Your task to perform on an android device: turn off translation in the chrome app Image 0: 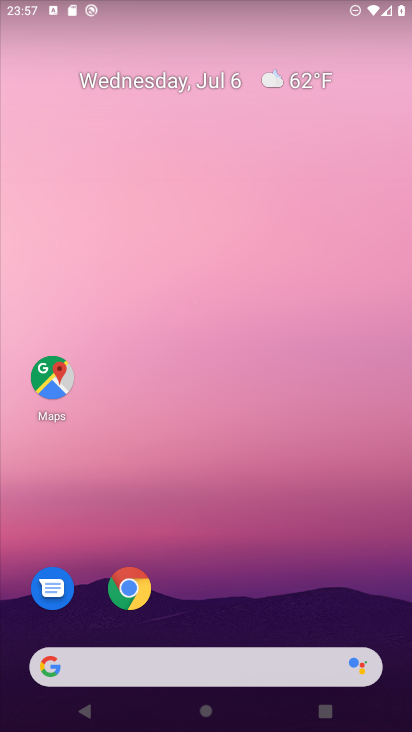
Step 0: click (129, 590)
Your task to perform on an android device: turn off translation in the chrome app Image 1: 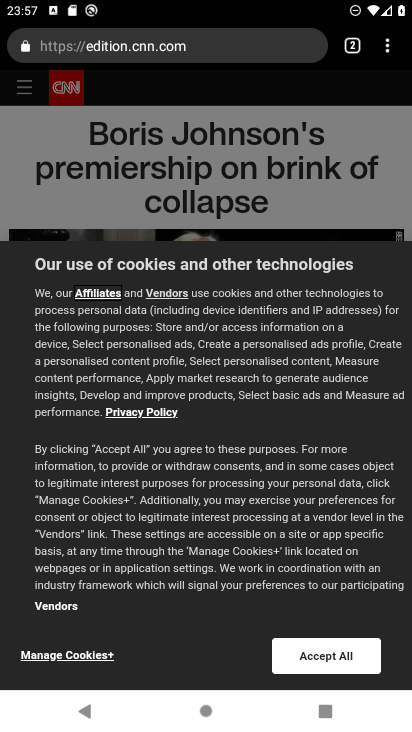
Step 1: click (386, 52)
Your task to perform on an android device: turn off translation in the chrome app Image 2: 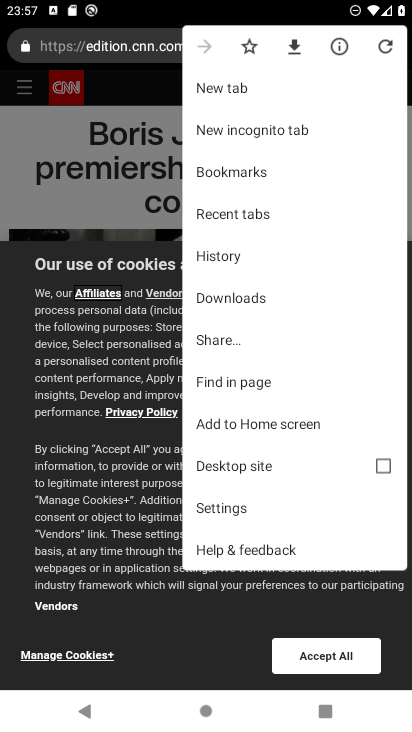
Step 2: click (228, 509)
Your task to perform on an android device: turn off translation in the chrome app Image 3: 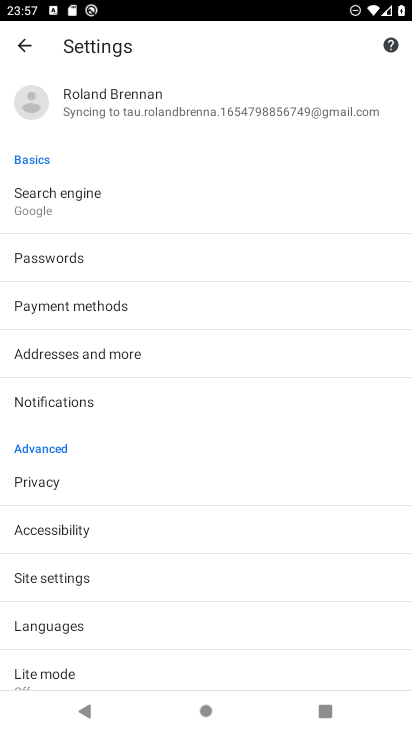
Step 3: click (51, 624)
Your task to perform on an android device: turn off translation in the chrome app Image 4: 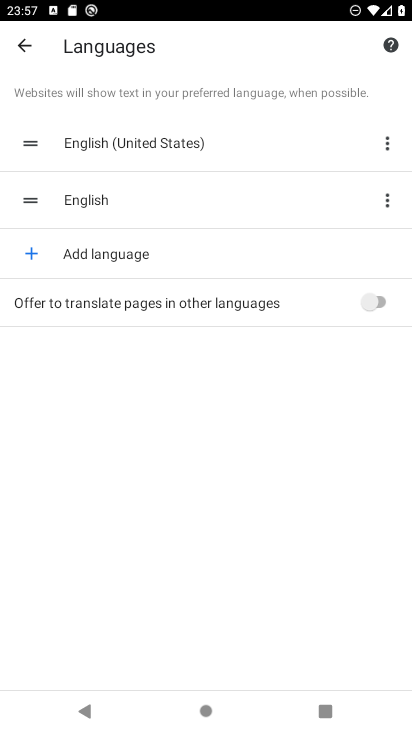
Step 4: task complete